Your task to perform on an android device: open device folders in google photos Image 0: 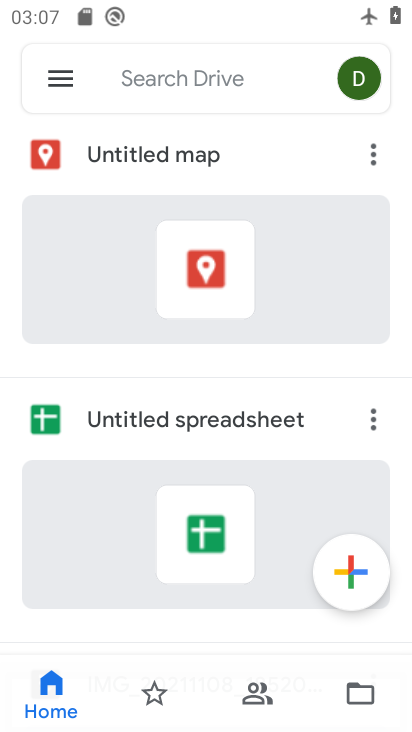
Step 0: press home button
Your task to perform on an android device: open device folders in google photos Image 1: 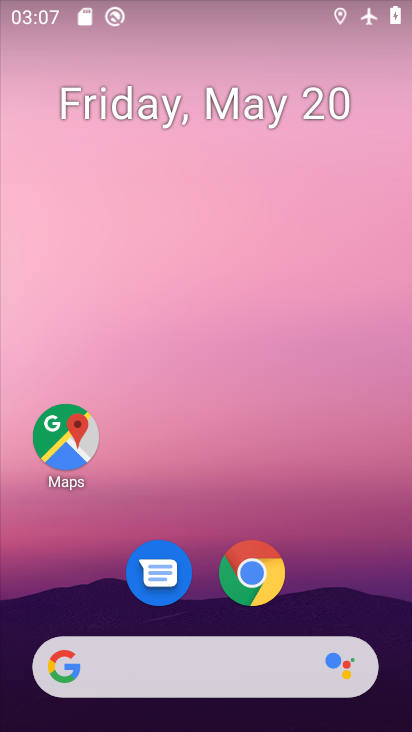
Step 1: drag from (205, 621) to (204, 178)
Your task to perform on an android device: open device folders in google photos Image 2: 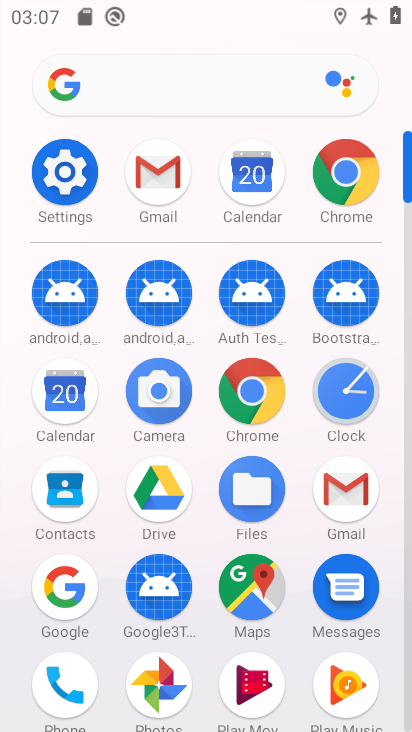
Step 2: click (150, 695)
Your task to perform on an android device: open device folders in google photos Image 3: 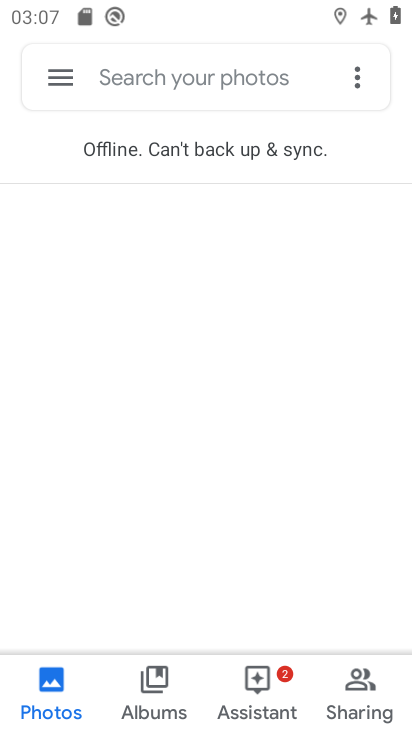
Step 3: click (64, 84)
Your task to perform on an android device: open device folders in google photos Image 4: 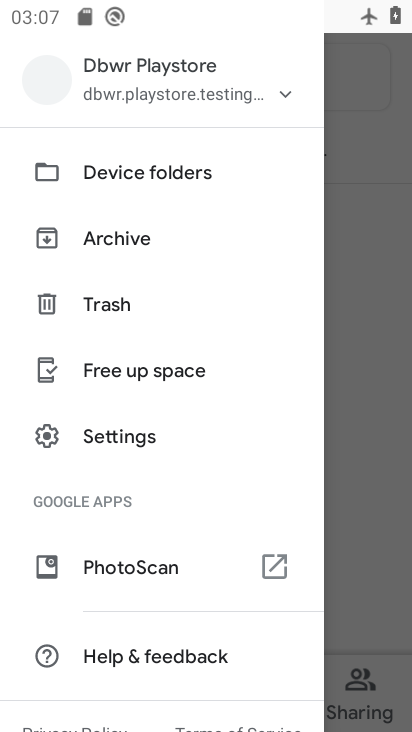
Step 4: click (111, 166)
Your task to perform on an android device: open device folders in google photos Image 5: 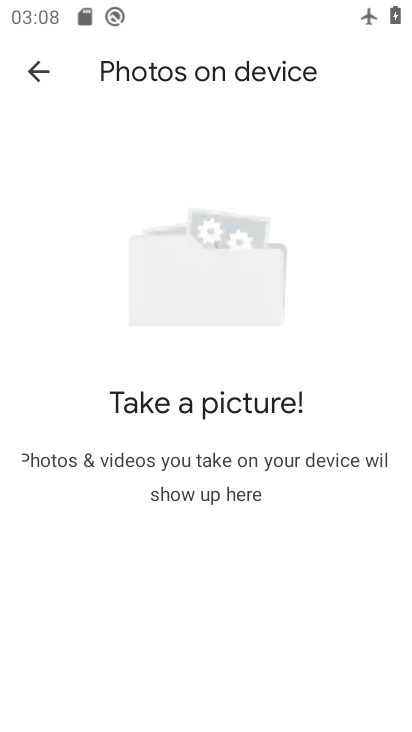
Step 5: task complete